Your task to perform on an android device: Open maps Image 0: 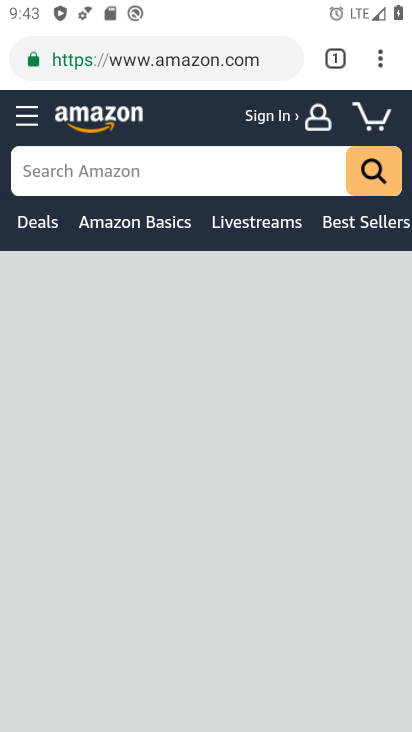
Step 0: press home button
Your task to perform on an android device: Open maps Image 1: 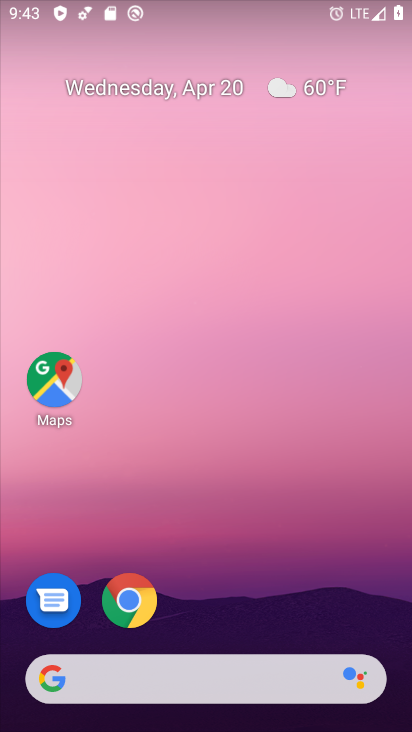
Step 1: click (61, 374)
Your task to perform on an android device: Open maps Image 2: 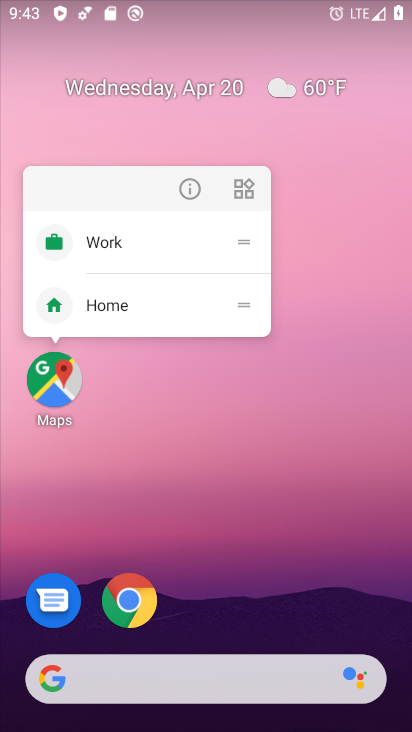
Step 2: click (58, 384)
Your task to perform on an android device: Open maps Image 3: 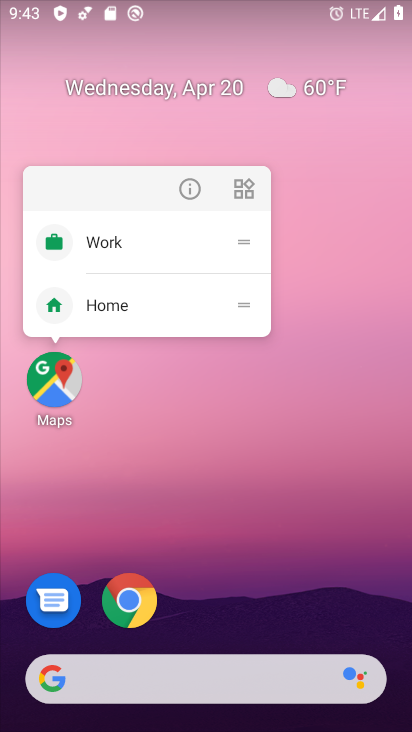
Step 3: click (54, 383)
Your task to perform on an android device: Open maps Image 4: 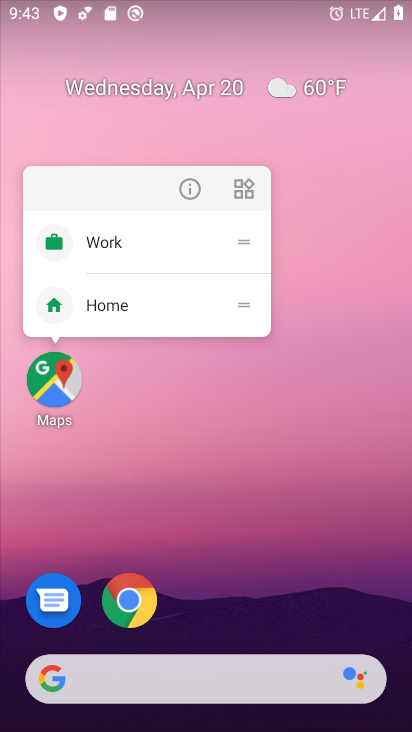
Step 4: click (46, 370)
Your task to perform on an android device: Open maps Image 5: 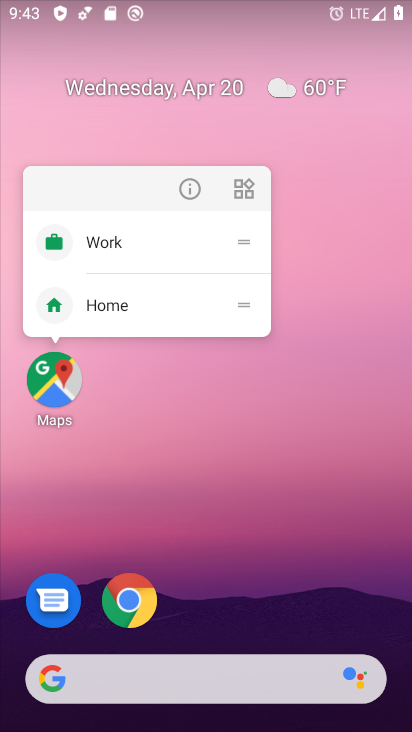
Step 5: click (46, 370)
Your task to perform on an android device: Open maps Image 6: 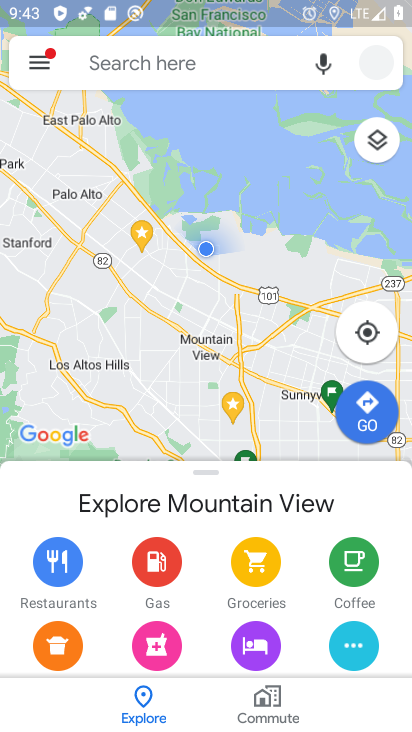
Step 6: task complete